Your task to perform on an android device: toggle location history Image 0: 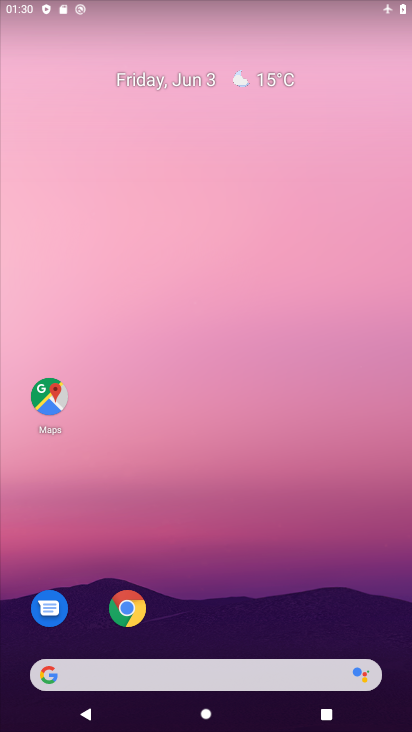
Step 0: drag from (222, 549) to (197, 81)
Your task to perform on an android device: toggle location history Image 1: 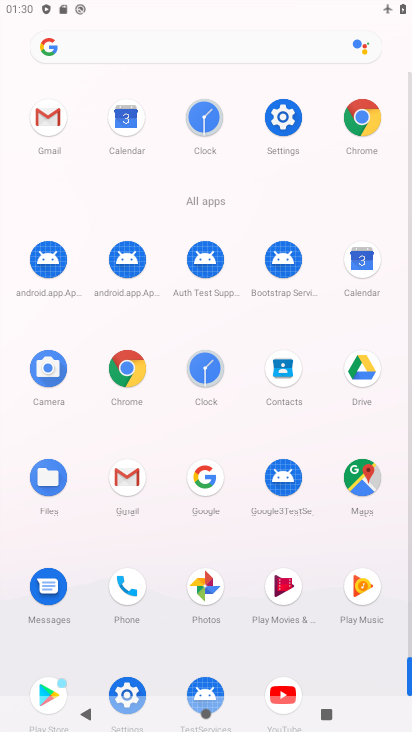
Step 1: click (291, 114)
Your task to perform on an android device: toggle location history Image 2: 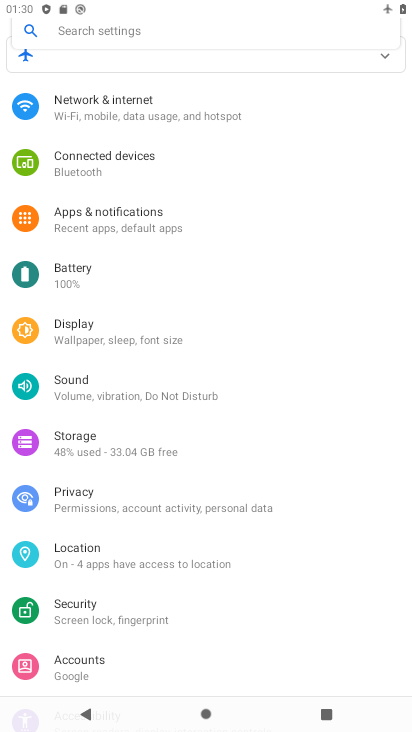
Step 2: click (179, 563)
Your task to perform on an android device: toggle location history Image 3: 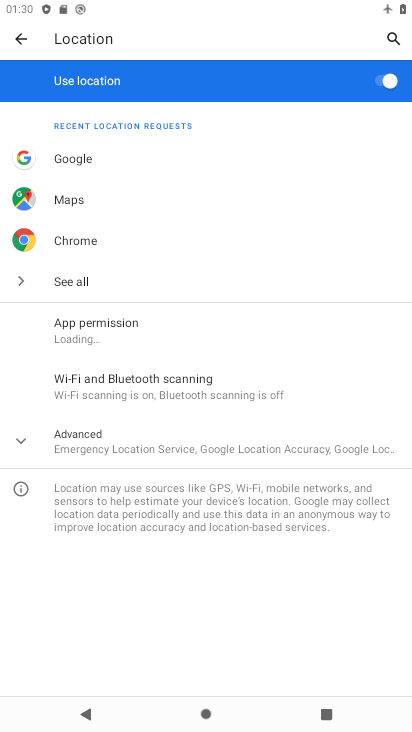
Step 3: click (160, 441)
Your task to perform on an android device: toggle location history Image 4: 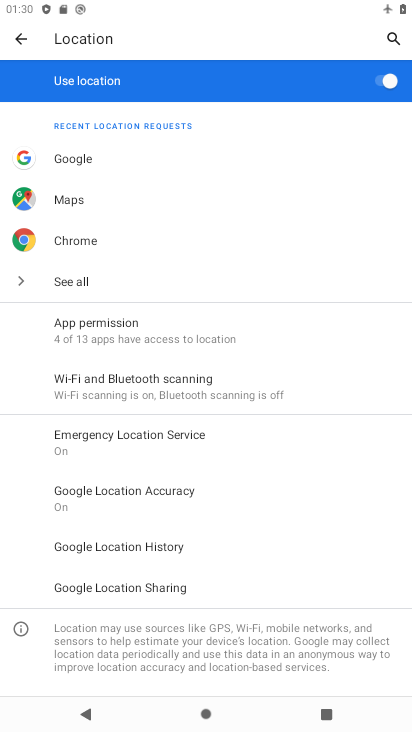
Step 4: click (156, 543)
Your task to perform on an android device: toggle location history Image 5: 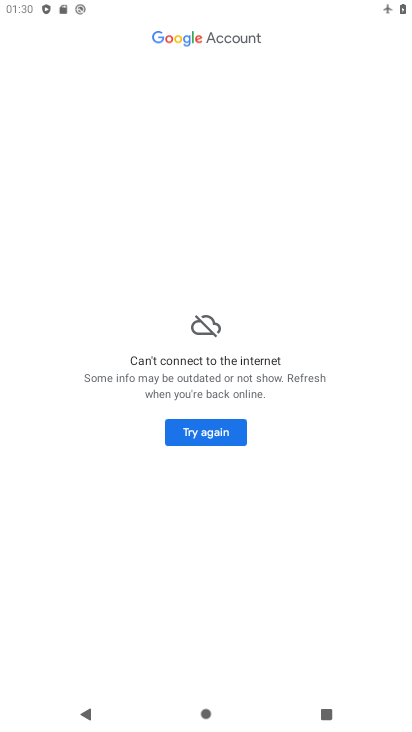
Step 5: task complete